Your task to perform on an android device: turn on notifications settings in the gmail app Image 0: 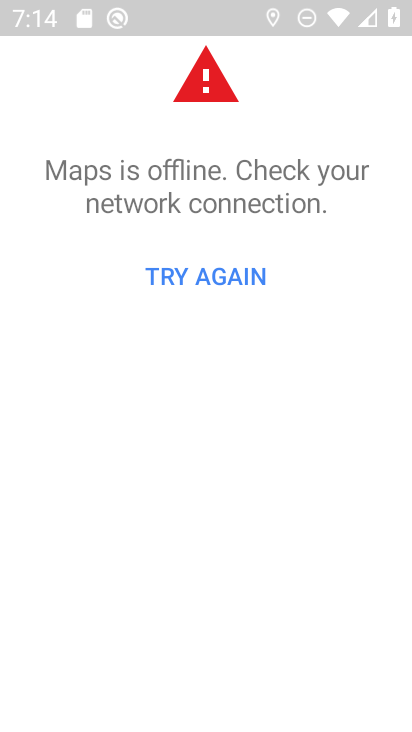
Step 0: press home button
Your task to perform on an android device: turn on notifications settings in the gmail app Image 1: 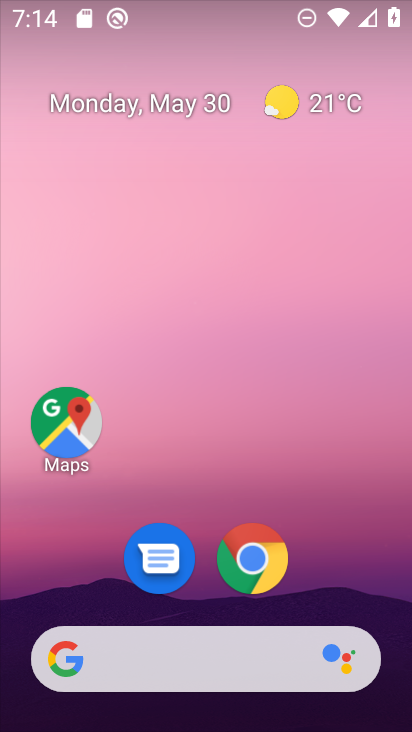
Step 1: drag from (190, 467) to (111, 101)
Your task to perform on an android device: turn on notifications settings in the gmail app Image 2: 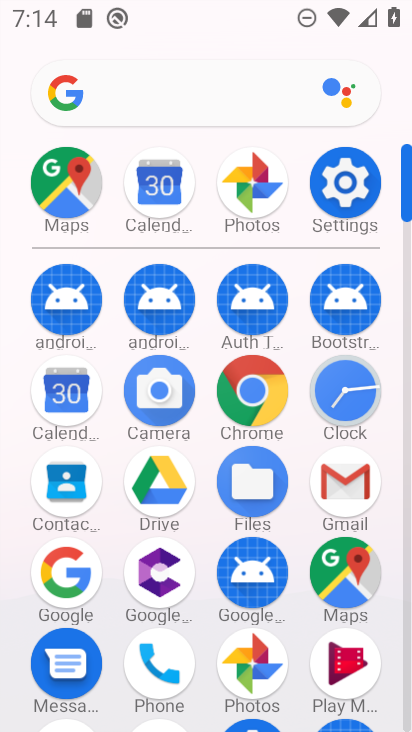
Step 2: click (343, 480)
Your task to perform on an android device: turn on notifications settings in the gmail app Image 3: 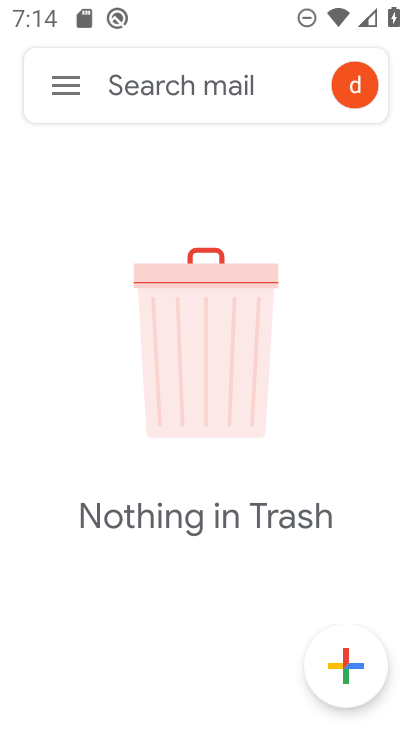
Step 3: click (67, 83)
Your task to perform on an android device: turn on notifications settings in the gmail app Image 4: 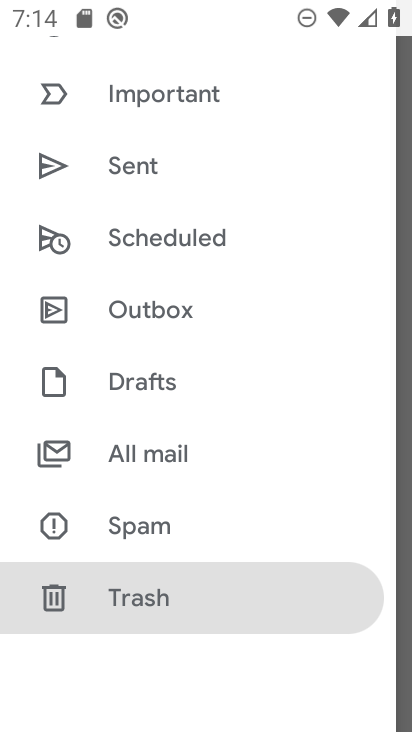
Step 4: drag from (213, 540) to (168, 186)
Your task to perform on an android device: turn on notifications settings in the gmail app Image 5: 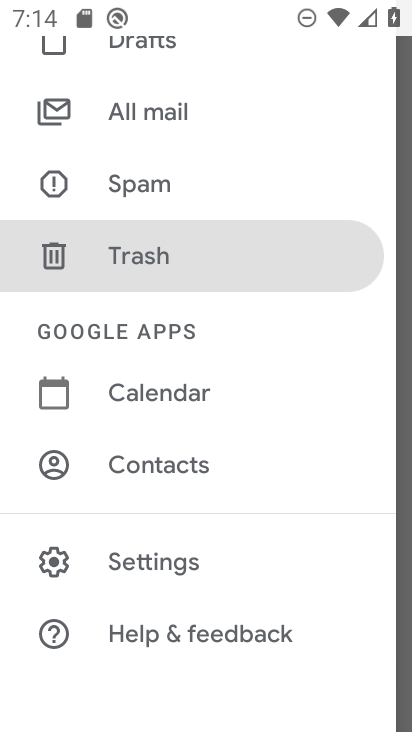
Step 5: click (174, 563)
Your task to perform on an android device: turn on notifications settings in the gmail app Image 6: 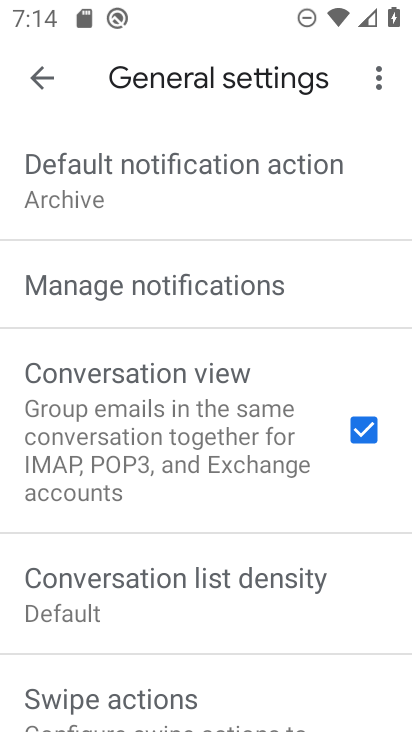
Step 6: click (143, 280)
Your task to perform on an android device: turn on notifications settings in the gmail app Image 7: 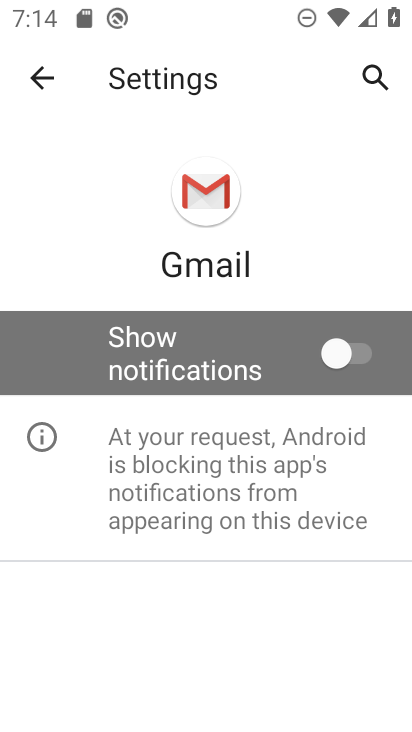
Step 7: click (329, 344)
Your task to perform on an android device: turn on notifications settings in the gmail app Image 8: 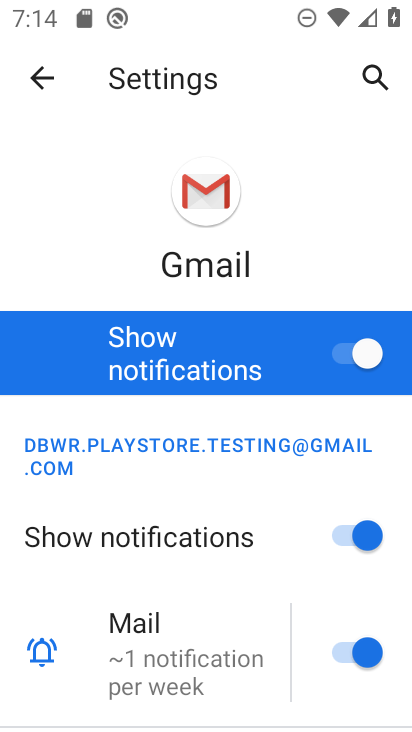
Step 8: task complete